Your task to perform on an android device: Go to Android settings Image 0: 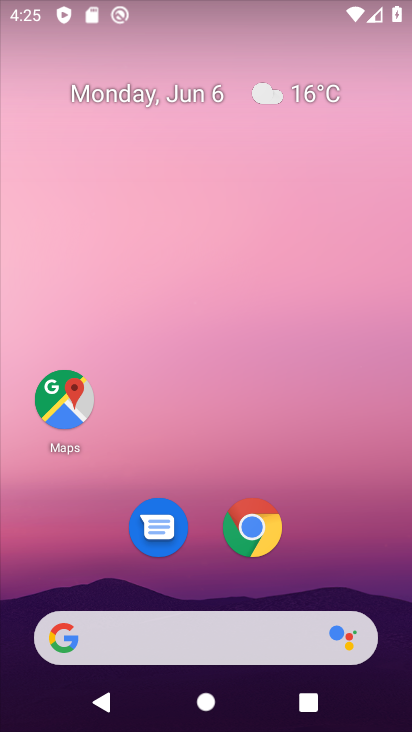
Step 0: drag from (276, 552) to (308, 151)
Your task to perform on an android device: Go to Android settings Image 1: 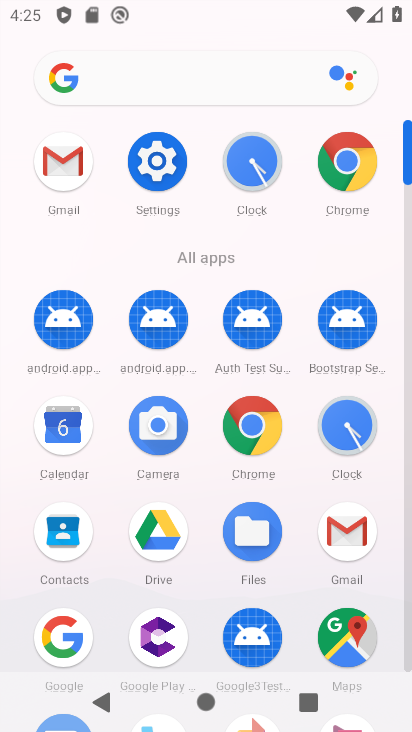
Step 1: drag from (211, 601) to (239, 187)
Your task to perform on an android device: Go to Android settings Image 2: 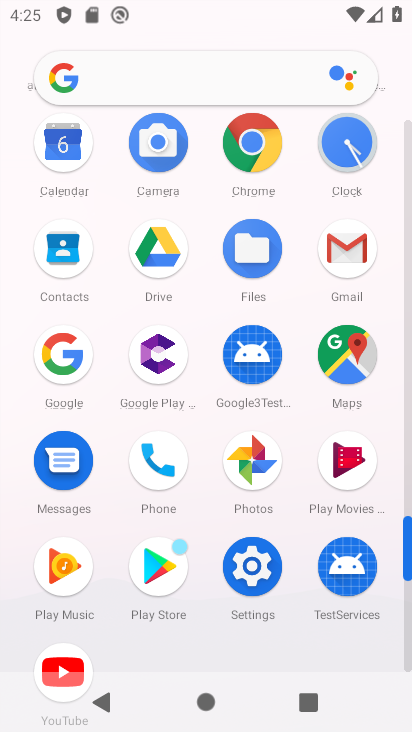
Step 2: click (248, 583)
Your task to perform on an android device: Go to Android settings Image 3: 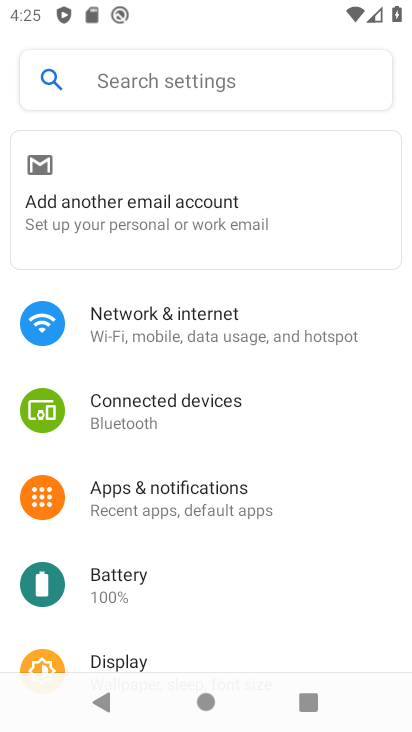
Step 3: task complete